Your task to perform on an android device: Open the Play Movies app and select the watchlist tab. Image 0: 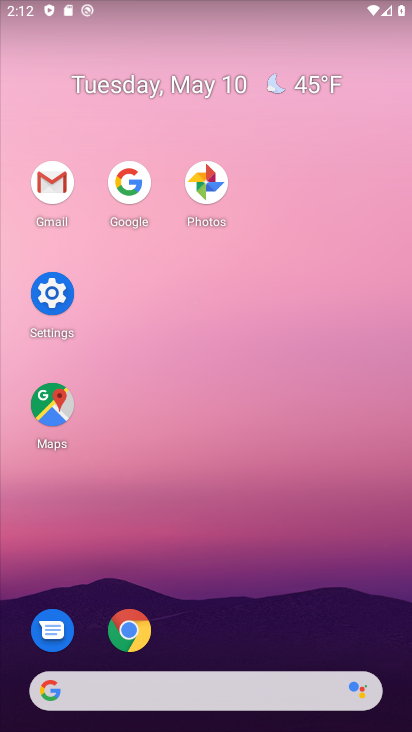
Step 0: drag from (198, 657) to (271, 183)
Your task to perform on an android device: Open the Play Movies app and select the watchlist tab. Image 1: 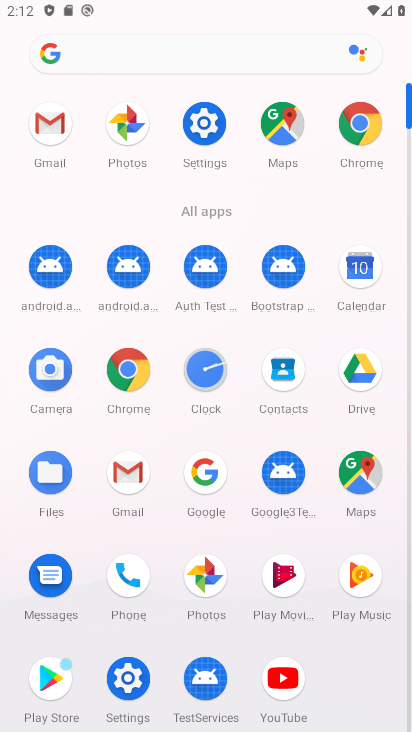
Step 1: click (279, 586)
Your task to perform on an android device: Open the Play Movies app and select the watchlist tab. Image 2: 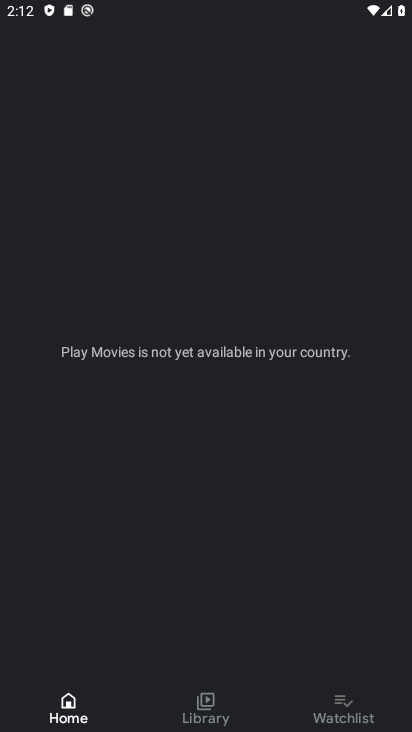
Step 2: click (330, 709)
Your task to perform on an android device: Open the Play Movies app and select the watchlist tab. Image 3: 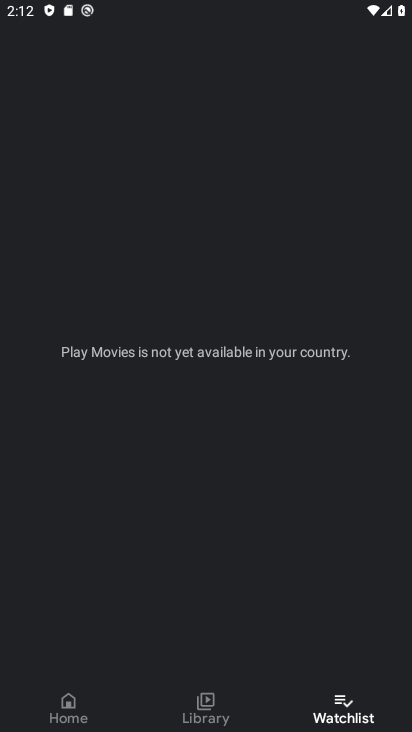
Step 3: task complete